Your task to perform on an android device: Open network settings Image 0: 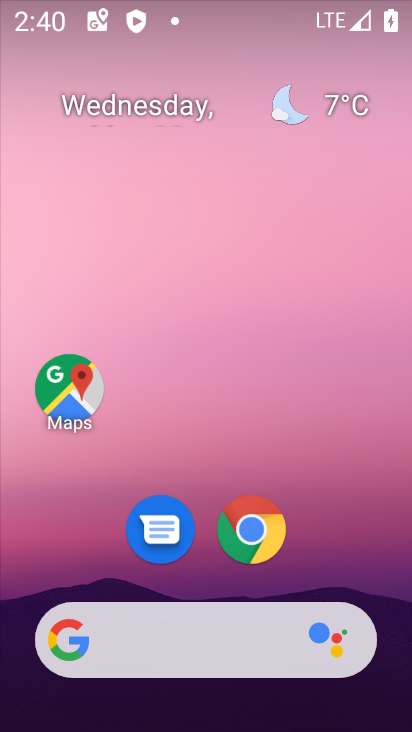
Step 0: drag from (14, 672) to (321, 107)
Your task to perform on an android device: Open network settings Image 1: 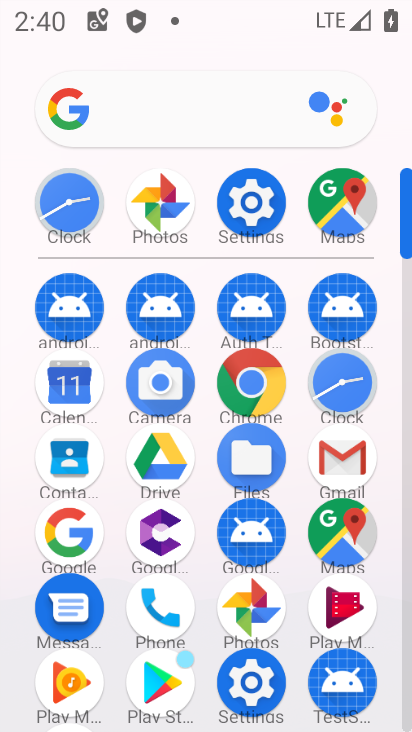
Step 1: click (267, 211)
Your task to perform on an android device: Open network settings Image 2: 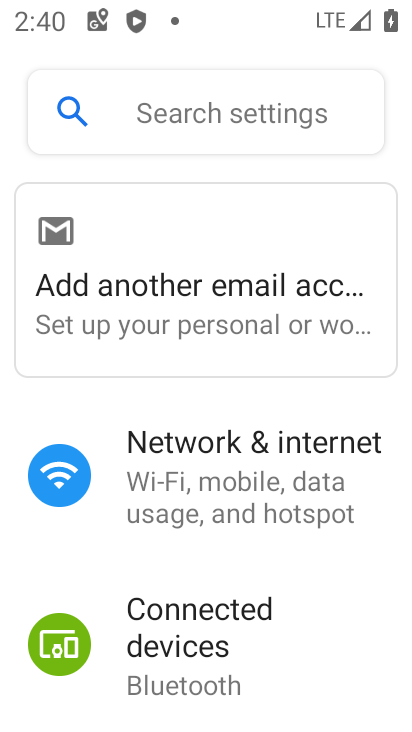
Step 2: click (189, 470)
Your task to perform on an android device: Open network settings Image 3: 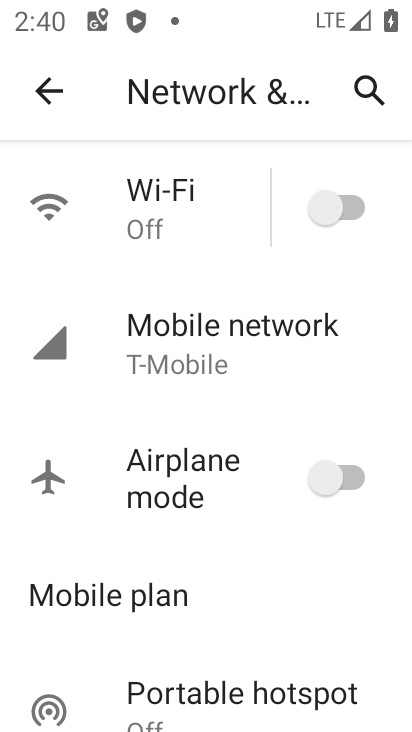
Step 3: click (248, 348)
Your task to perform on an android device: Open network settings Image 4: 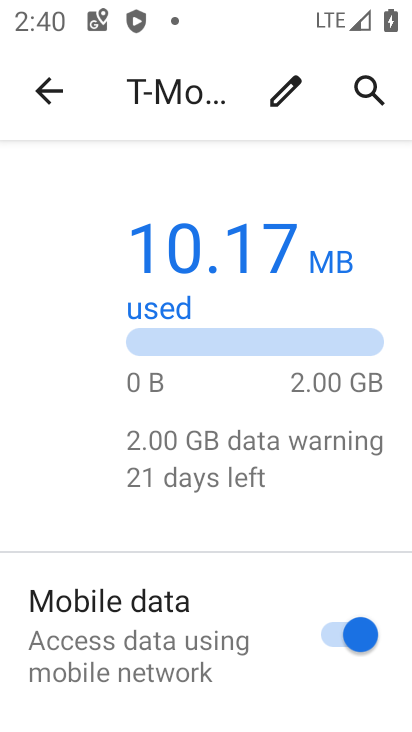
Step 4: task complete